Your task to perform on an android device: Go to ESPN.com Image 0: 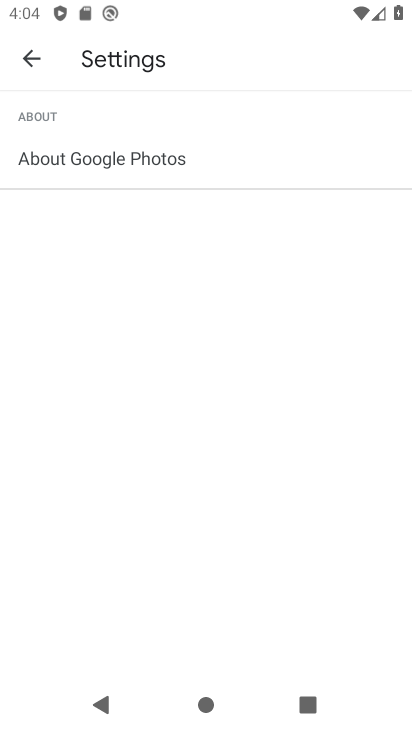
Step 0: press home button
Your task to perform on an android device: Go to ESPN.com Image 1: 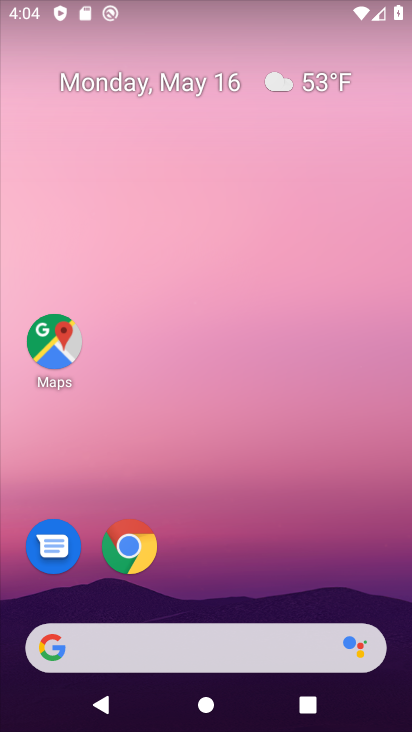
Step 1: click (146, 545)
Your task to perform on an android device: Go to ESPN.com Image 2: 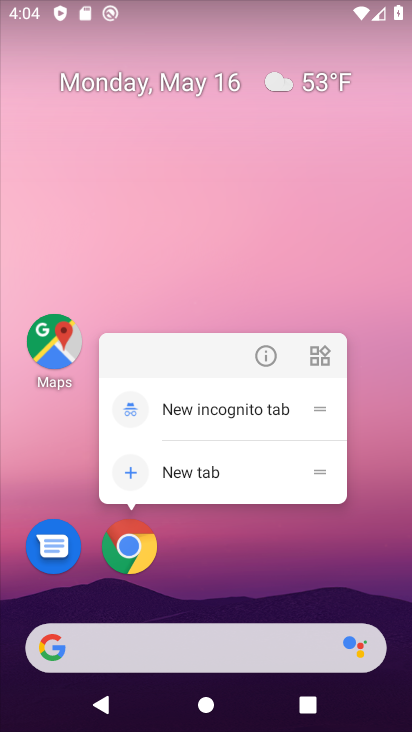
Step 2: click (138, 552)
Your task to perform on an android device: Go to ESPN.com Image 3: 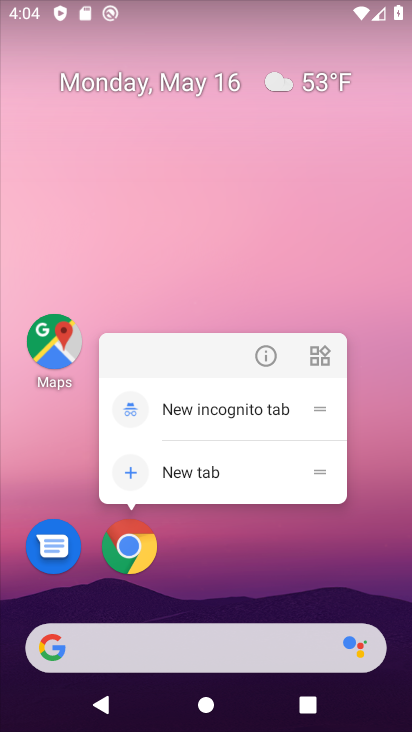
Step 3: click (138, 552)
Your task to perform on an android device: Go to ESPN.com Image 4: 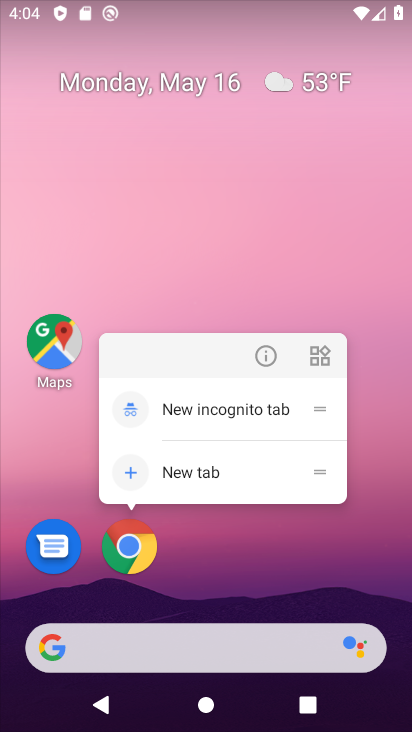
Step 4: click (134, 548)
Your task to perform on an android device: Go to ESPN.com Image 5: 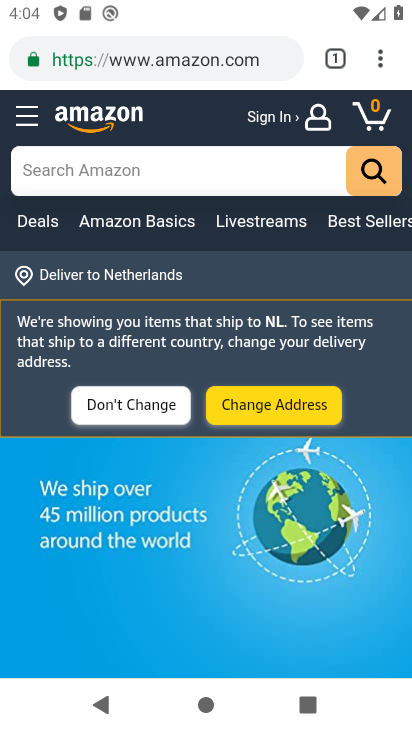
Step 5: drag from (386, 32) to (363, 110)
Your task to perform on an android device: Go to ESPN.com Image 6: 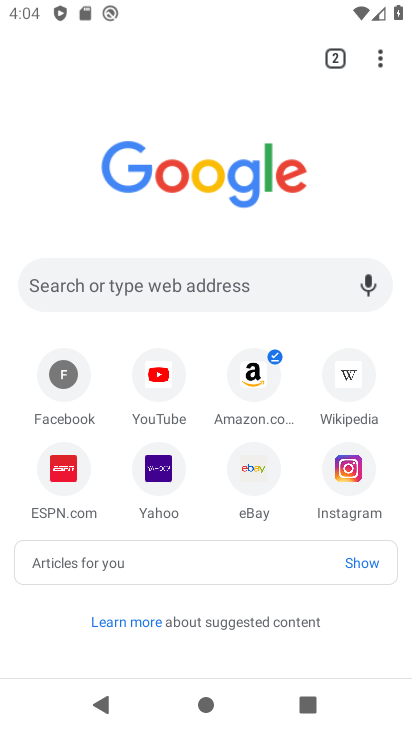
Step 6: drag from (357, 137) to (403, 419)
Your task to perform on an android device: Go to ESPN.com Image 7: 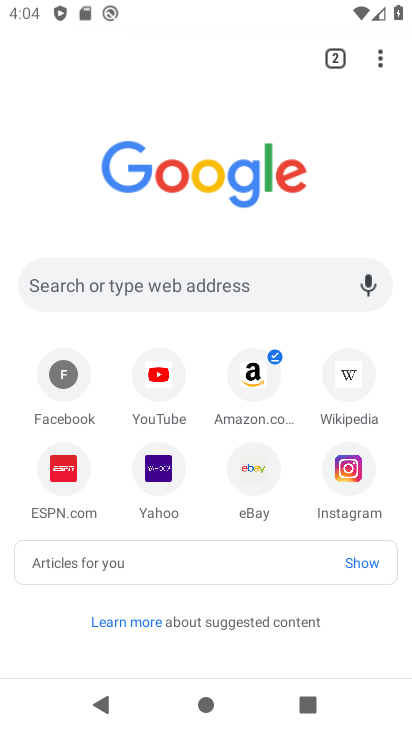
Step 7: click (67, 487)
Your task to perform on an android device: Go to ESPN.com Image 8: 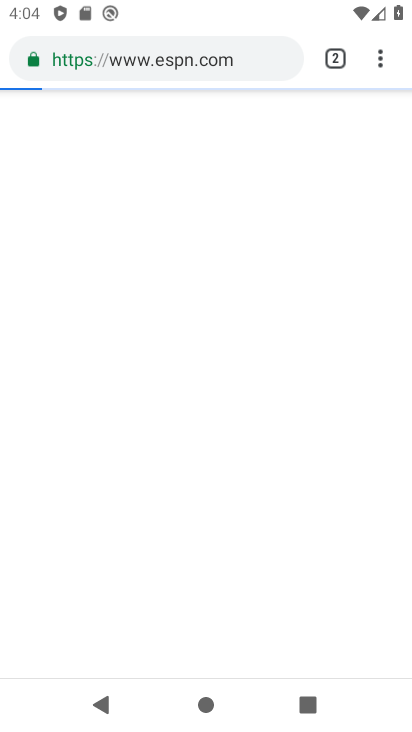
Step 8: task complete